Your task to perform on an android device: Go to Google maps Image 0: 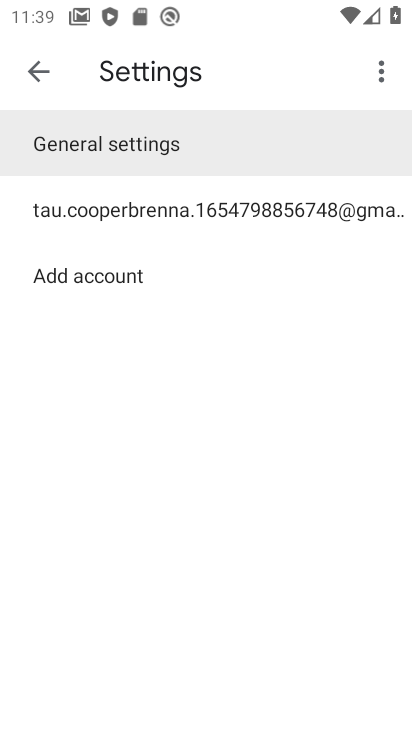
Step 0: press home button
Your task to perform on an android device: Go to Google maps Image 1: 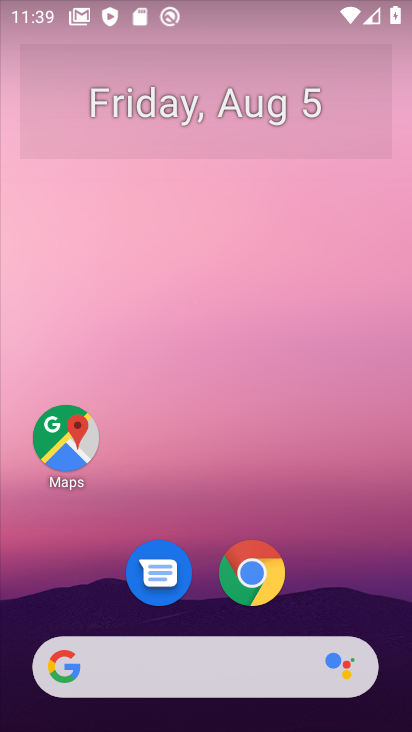
Step 1: click (84, 443)
Your task to perform on an android device: Go to Google maps Image 2: 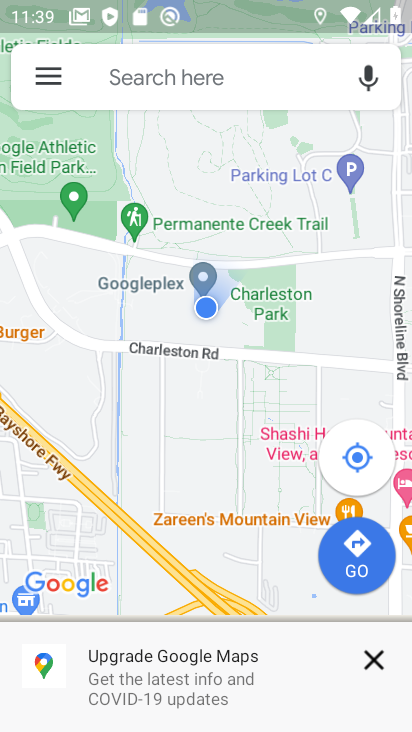
Step 2: task complete